Your task to perform on an android device: set the timer Image 0: 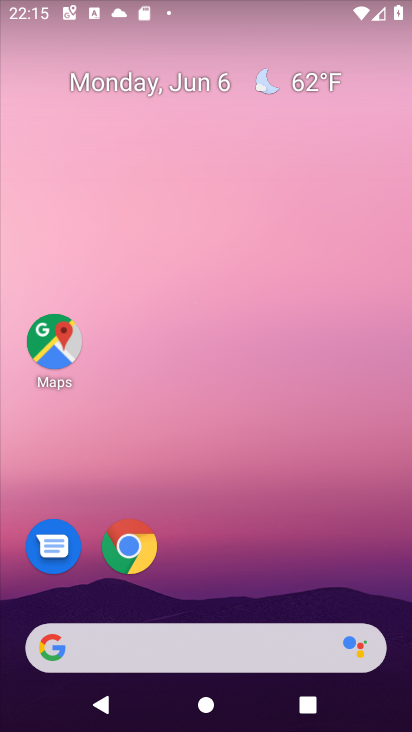
Step 0: drag from (399, 657) to (316, 175)
Your task to perform on an android device: set the timer Image 1: 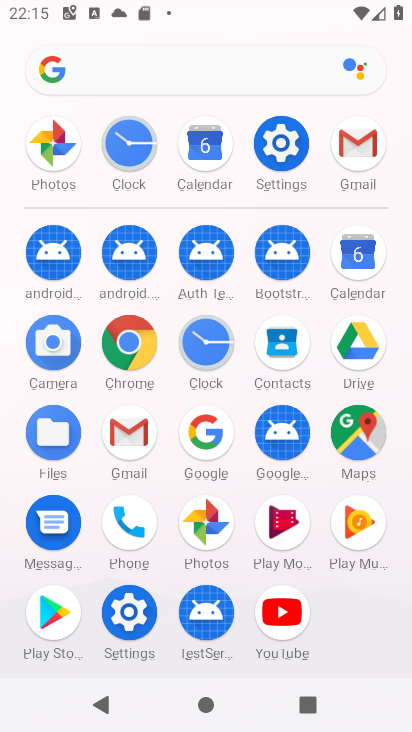
Step 1: click (203, 343)
Your task to perform on an android device: set the timer Image 2: 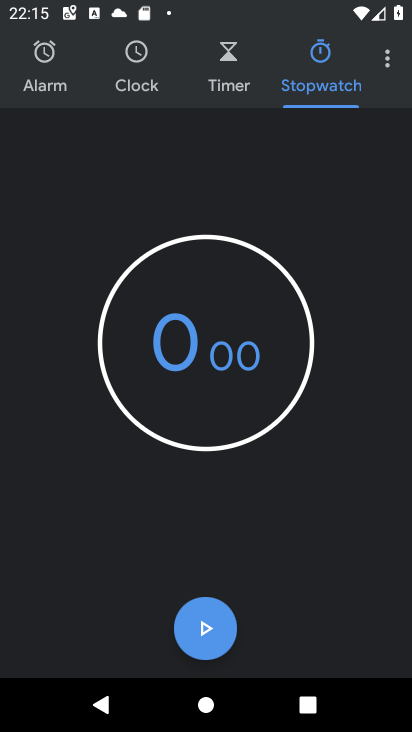
Step 2: click (229, 80)
Your task to perform on an android device: set the timer Image 3: 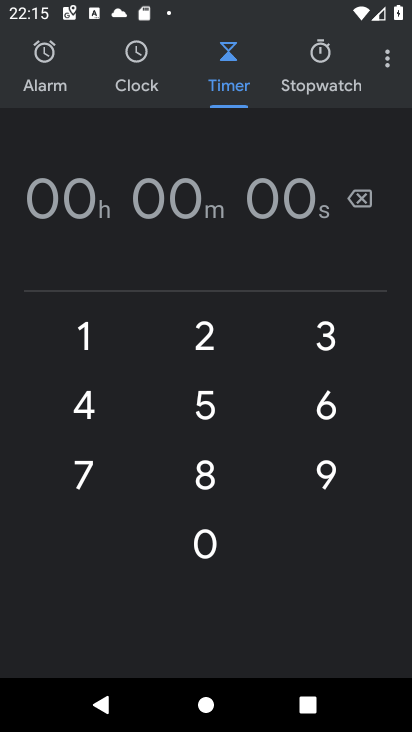
Step 3: click (86, 328)
Your task to perform on an android device: set the timer Image 4: 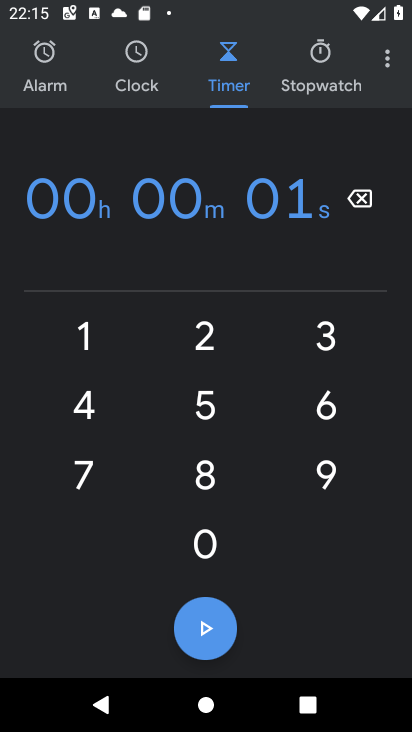
Step 4: click (333, 334)
Your task to perform on an android device: set the timer Image 5: 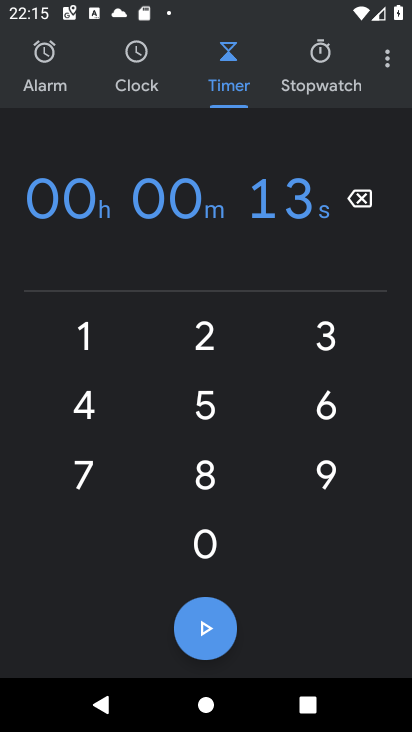
Step 5: click (206, 547)
Your task to perform on an android device: set the timer Image 6: 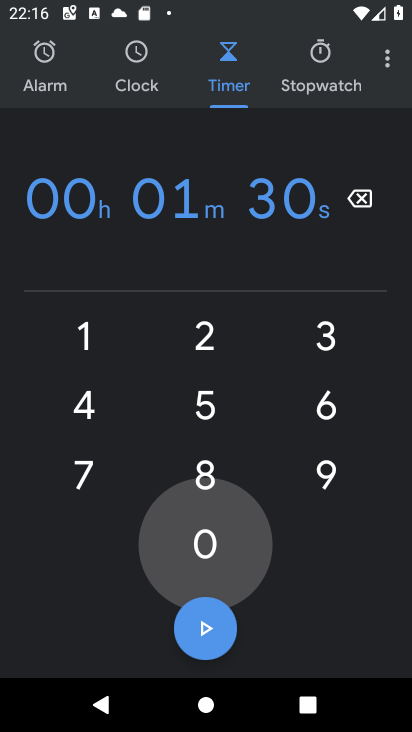
Step 6: click (206, 547)
Your task to perform on an android device: set the timer Image 7: 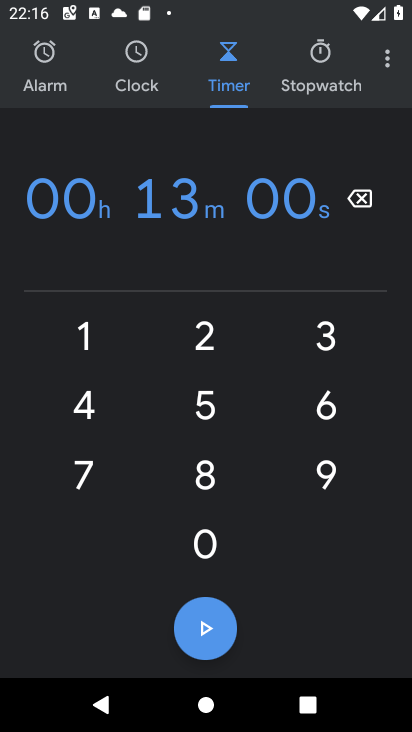
Step 7: click (206, 547)
Your task to perform on an android device: set the timer Image 8: 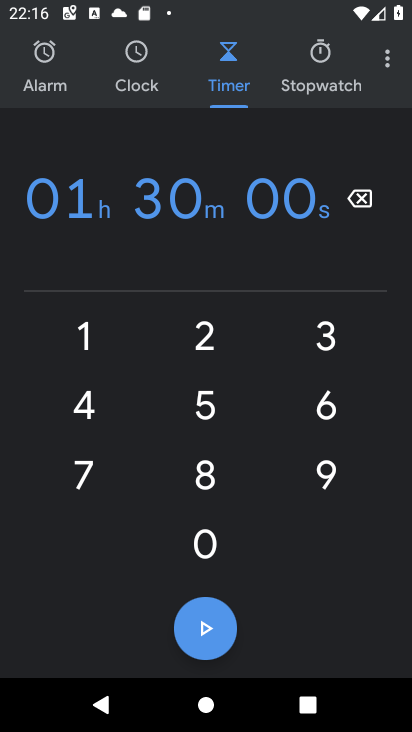
Step 8: task complete